Your task to perform on an android device: What is the news today? Image 0: 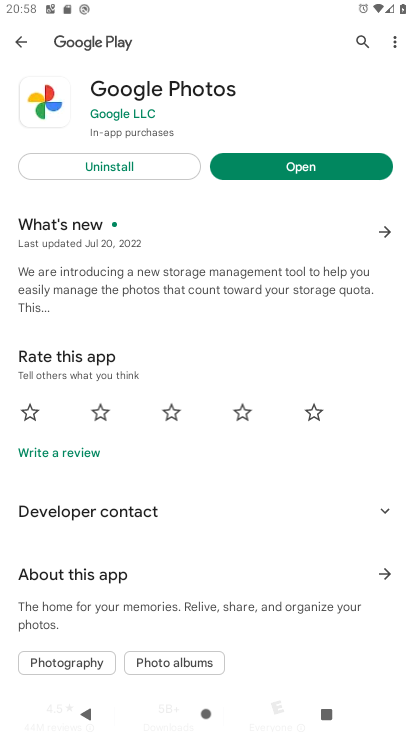
Step 0: press home button
Your task to perform on an android device: What is the news today? Image 1: 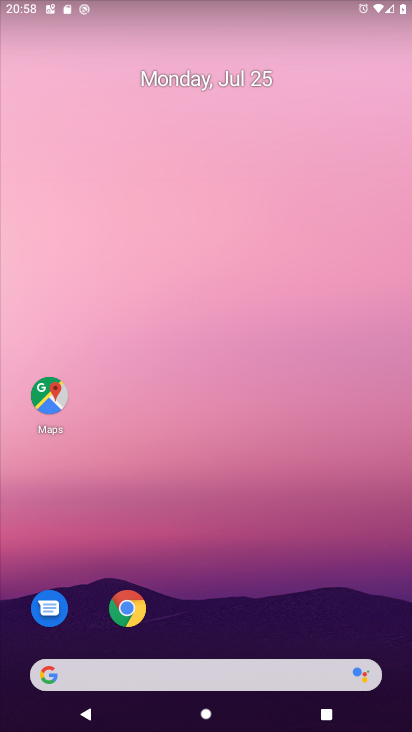
Step 1: click (207, 669)
Your task to perform on an android device: What is the news today? Image 2: 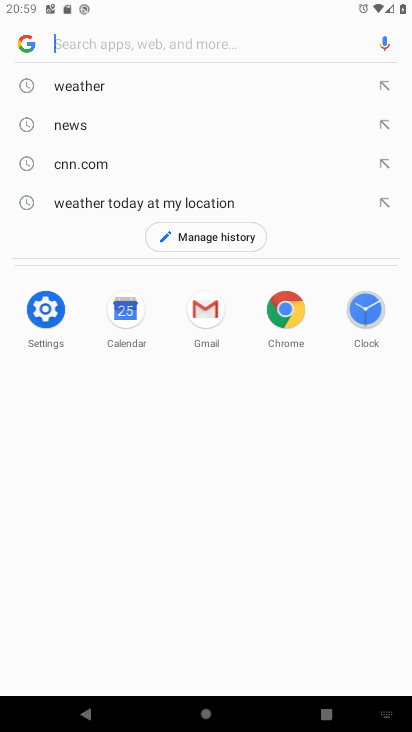
Step 2: type "what is the news today"
Your task to perform on an android device: What is the news today? Image 3: 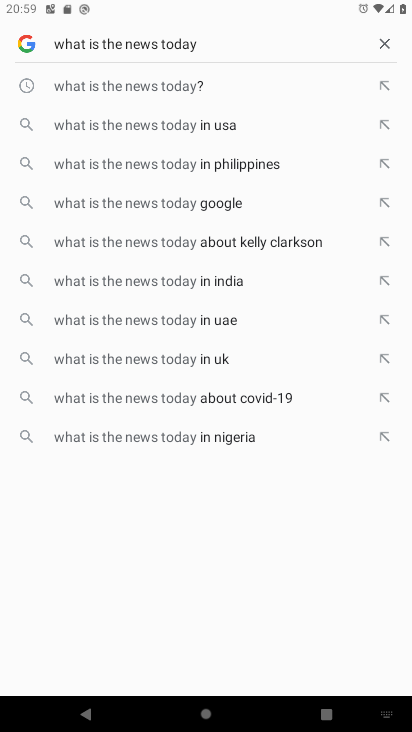
Step 3: click (140, 87)
Your task to perform on an android device: What is the news today? Image 4: 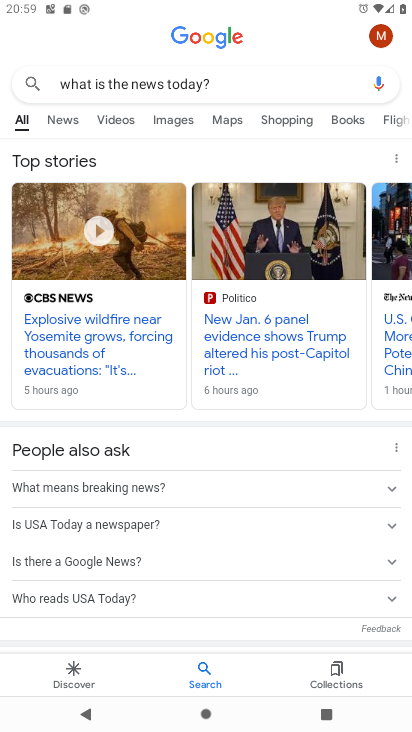
Step 4: click (66, 124)
Your task to perform on an android device: What is the news today? Image 5: 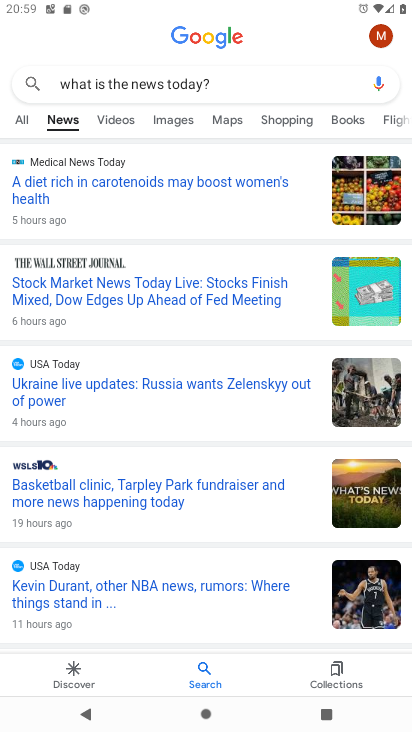
Step 5: task complete